Your task to perform on an android device: move a message to another label in the gmail app Image 0: 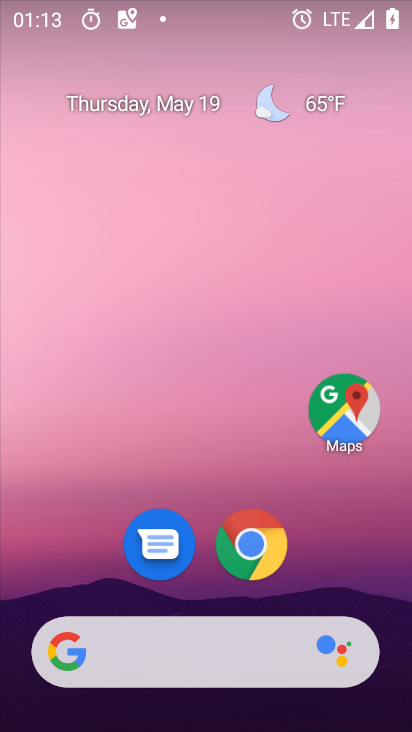
Step 0: drag from (365, 533) to (368, 101)
Your task to perform on an android device: move a message to another label in the gmail app Image 1: 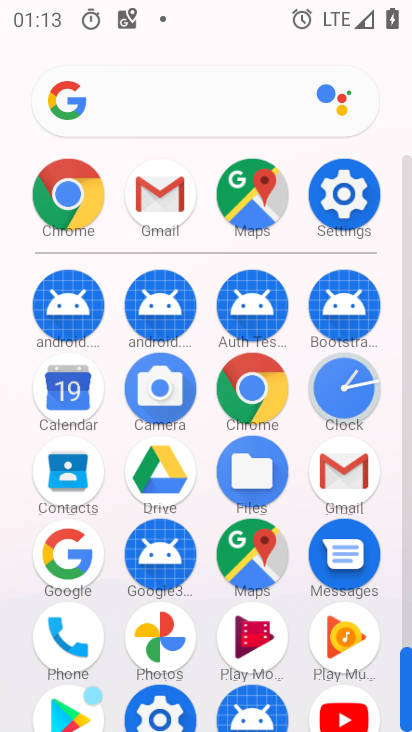
Step 1: click (339, 484)
Your task to perform on an android device: move a message to another label in the gmail app Image 2: 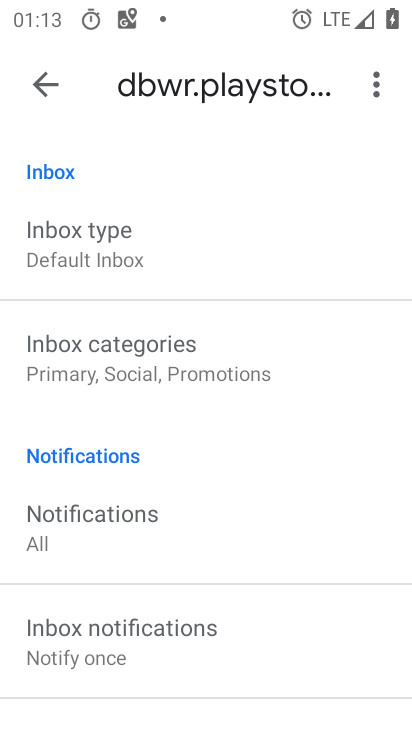
Step 2: click (47, 94)
Your task to perform on an android device: move a message to another label in the gmail app Image 3: 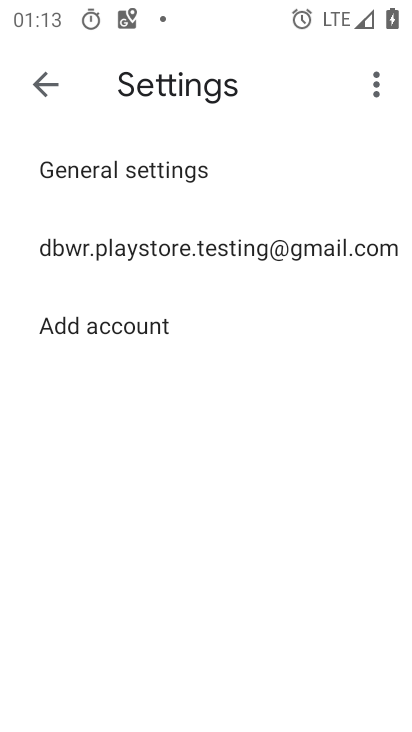
Step 3: click (48, 92)
Your task to perform on an android device: move a message to another label in the gmail app Image 4: 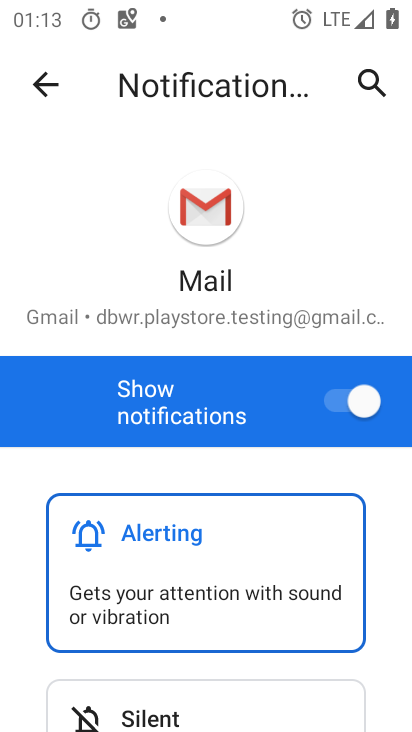
Step 4: click (42, 102)
Your task to perform on an android device: move a message to another label in the gmail app Image 5: 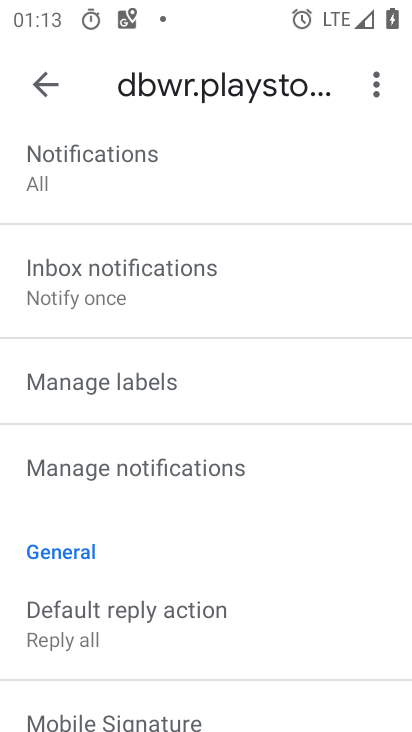
Step 5: drag from (262, 593) to (288, 381)
Your task to perform on an android device: move a message to another label in the gmail app Image 6: 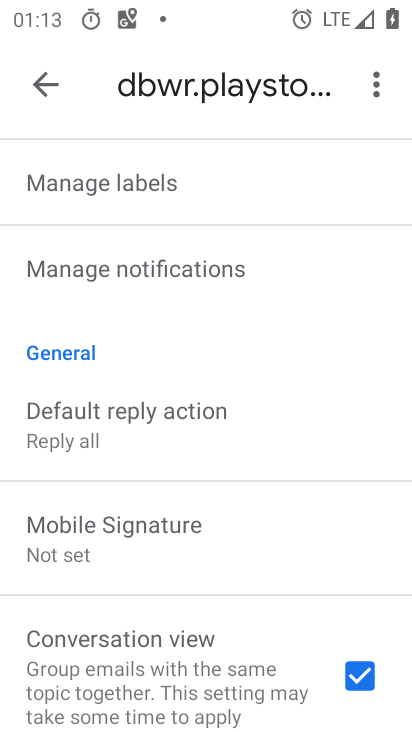
Step 6: drag from (299, 585) to (306, 403)
Your task to perform on an android device: move a message to another label in the gmail app Image 7: 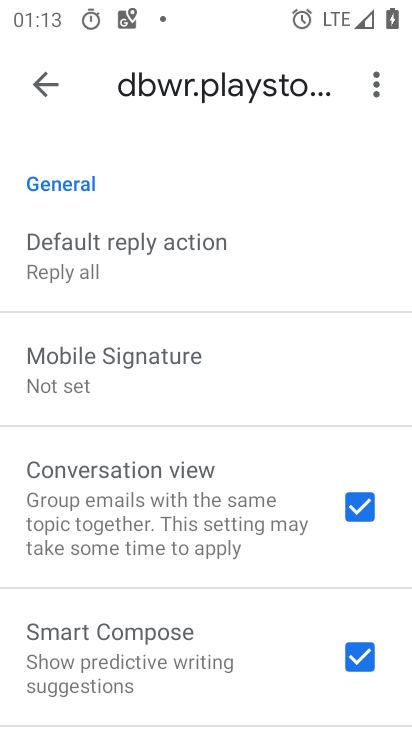
Step 7: drag from (282, 592) to (309, 392)
Your task to perform on an android device: move a message to another label in the gmail app Image 8: 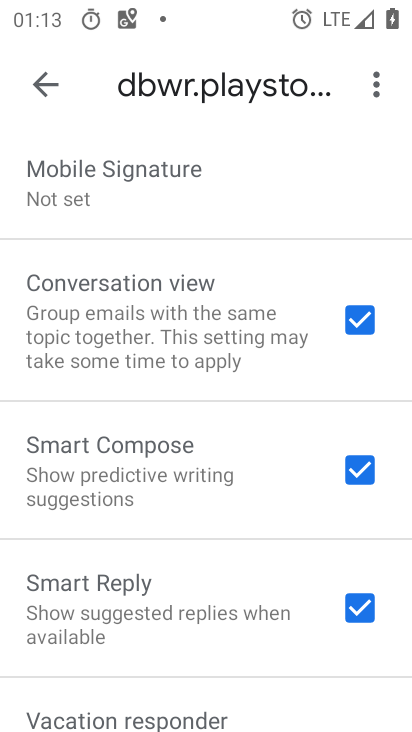
Step 8: drag from (300, 671) to (294, 490)
Your task to perform on an android device: move a message to another label in the gmail app Image 9: 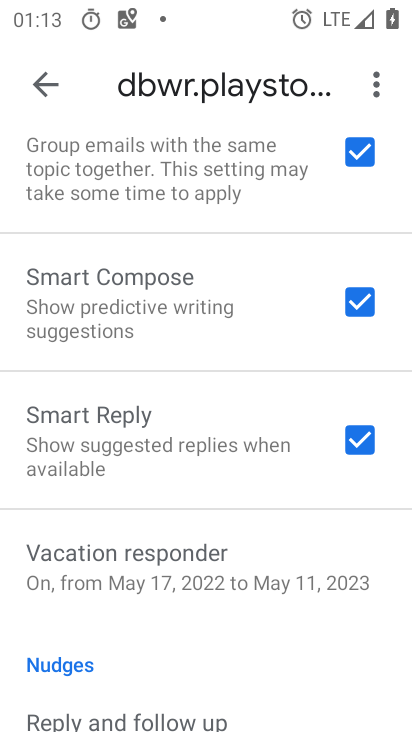
Step 9: drag from (275, 651) to (278, 506)
Your task to perform on an android device: move a message to another label in the gmail app Image 10: 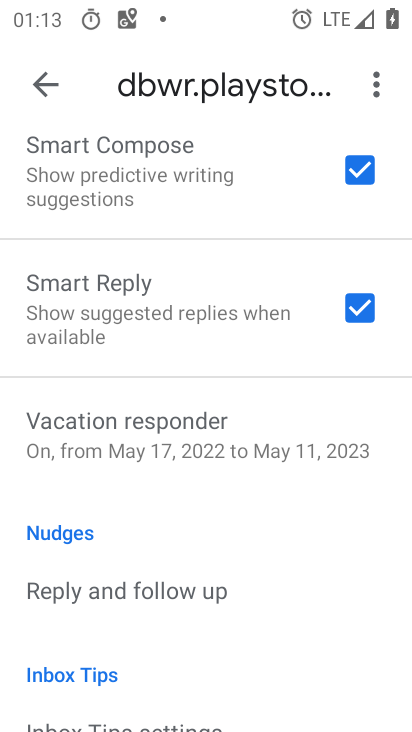
Step 10: click (42, 94)
Your task to perform on an android device: move a message to another label in the gmail app Image 11: 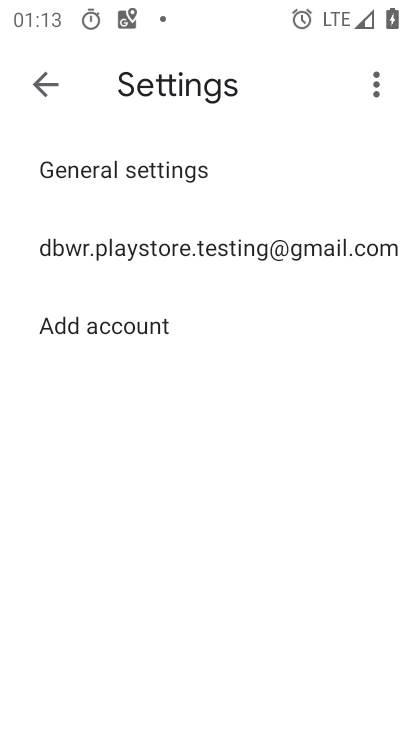
Step 11: click (40, 96)
Your task to perform on an android device: move a message to another label in the gmail app Image 12: 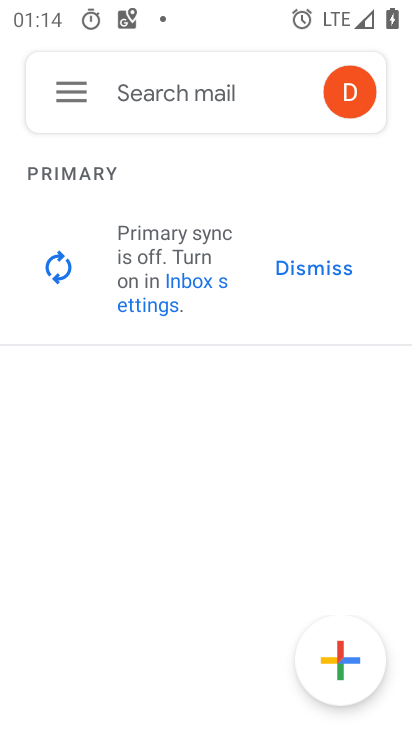
Step 12: click (68, 105)
Your task to perform on an android device: move a message to another label in the gmail app Image 13: 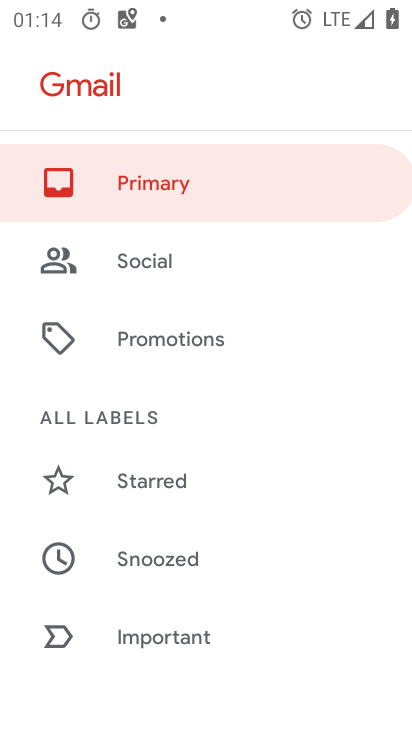
Step 13: drag from (286, 507) to (283, 302)
Your task to perform on an android device: move a message to another label in the gmail app Image 14: 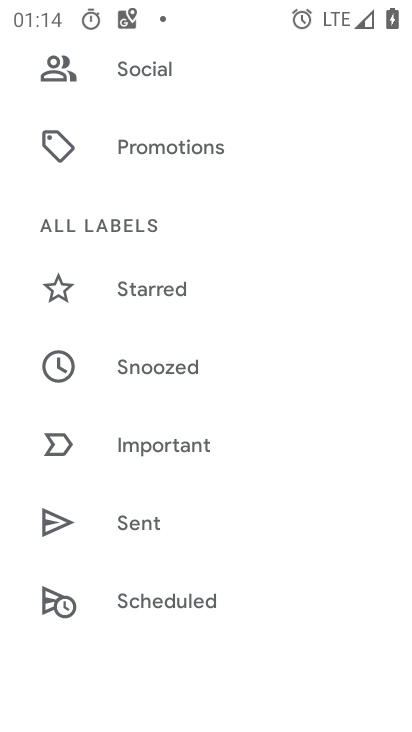
Step 14: drag from (294, 570) to (286, 215)
Your task to perform on an android device: move a message to another label in the gmail app Image 15: 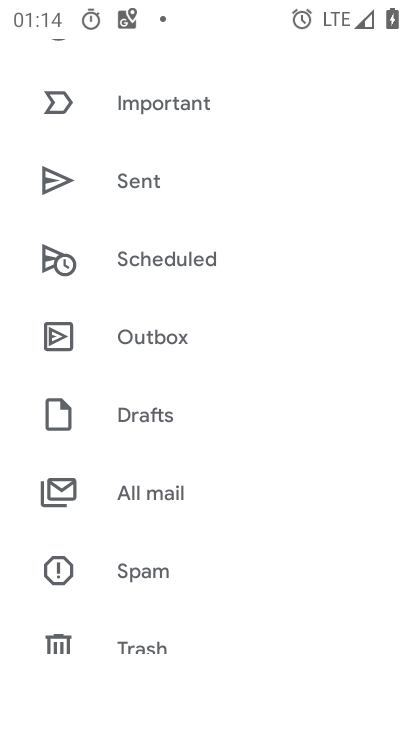
Step 15: drag from (271, 517) to (282, 266)
Your task to perform on an android device: move a message to another label in the gmail app Image 16: 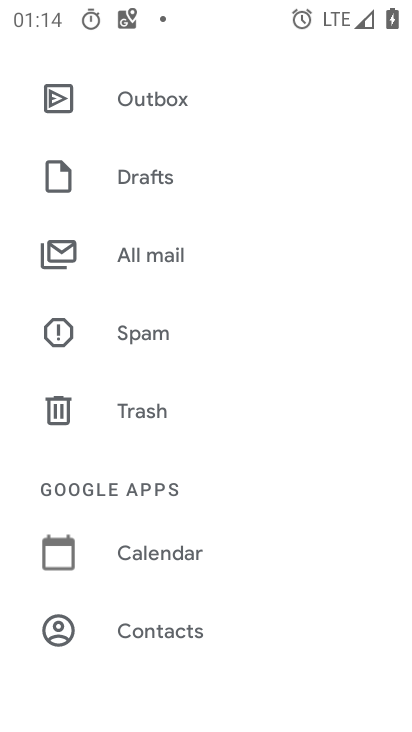
Step 16: drag from (293, 224) to (281, 525)
Your task to perform on an android device: move a message to another label in the gmail app Image 17: 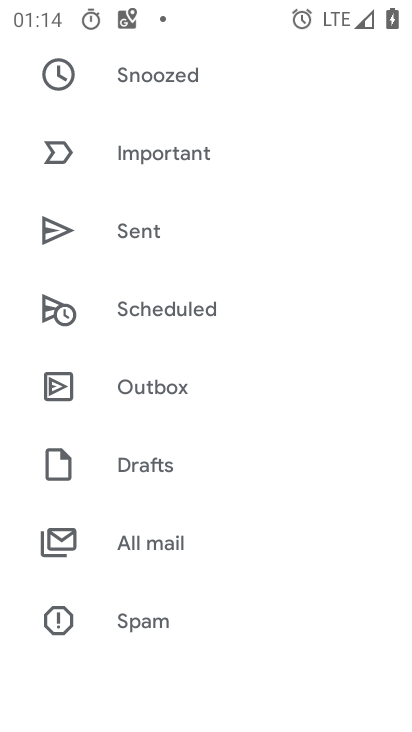
Step 17: drag from (295, 237) to (270, 588)
Your task to perform on an android device: move a message to another label in the gmail app Image 18: 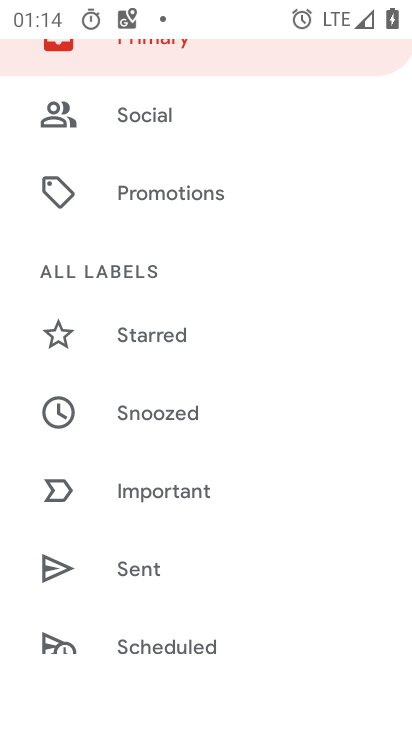
Step 18: drag from (258, 229) to (252, 503)
Your task to perform on an android device: move a message to another label in the gmail app Image 19: 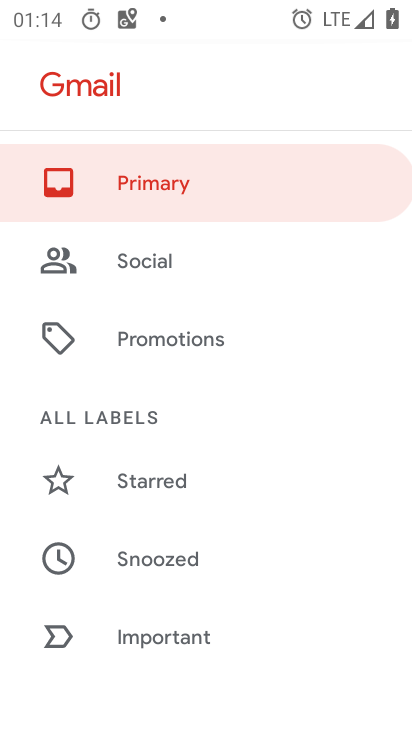
Step 19: click (216, 198)
Your task to perform on an android device: move a message to another label in the gmail app Image 20: 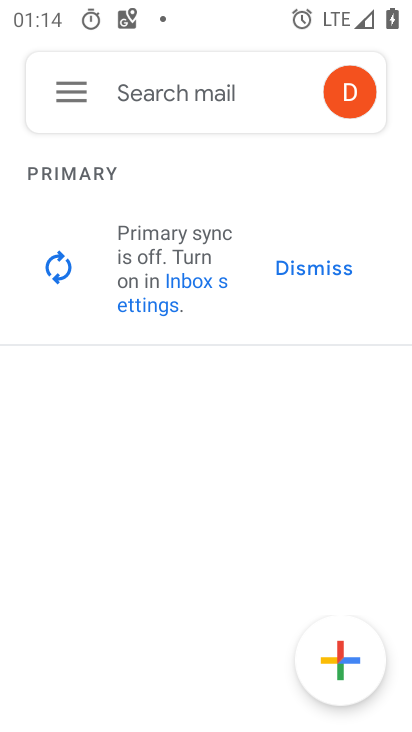
Step 20: task complete